Your task to perform on an android device: toggle sleep mode Image 0: 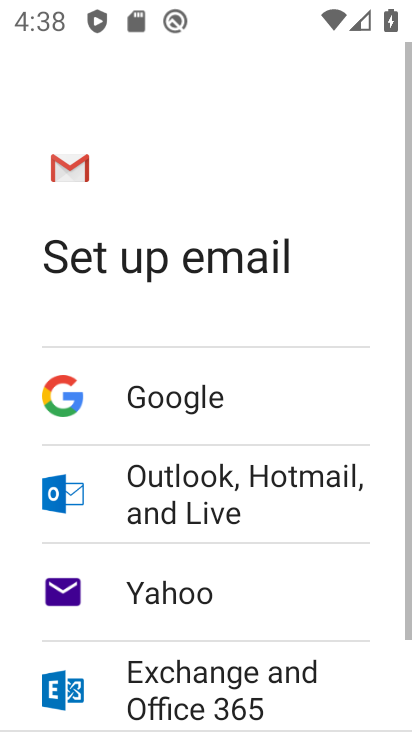
Step 0: press back button
Your task to perform on an android device: toggle sleep mode Image 1: 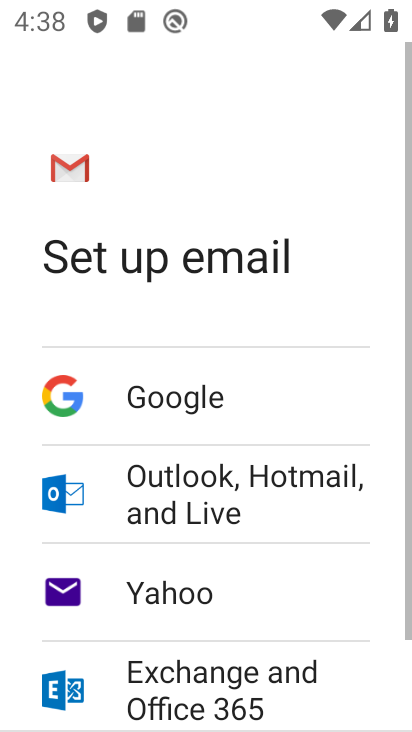
Step 1: press back button
Your task to perform on an android device: toggle sleep mode Image 2: 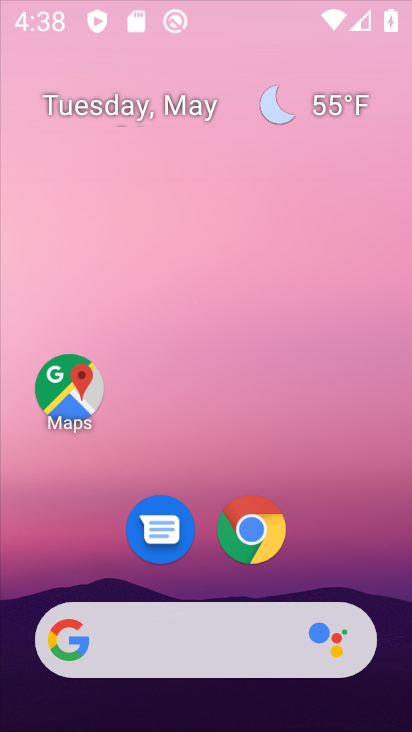
Step 2: press back button
Your task to perform on an android device: toggle sleep mode Image 3: 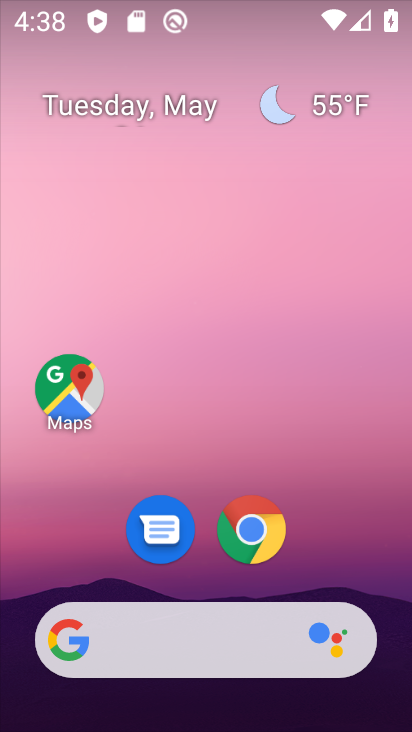
Step 3: drag from (157, 277) to (130, 134)
Your task to perform on an android device: toggle sleep mode Image 4: 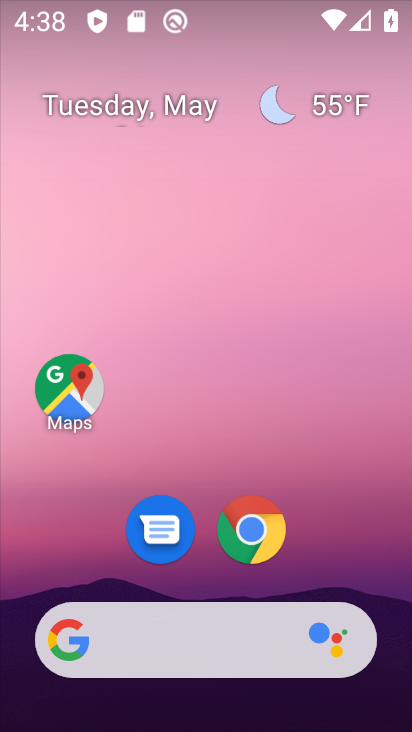
Step 4: drag from (206, 631) to (98, 171)
Your task to perform on an android device: toggle sleep mode Image 5: 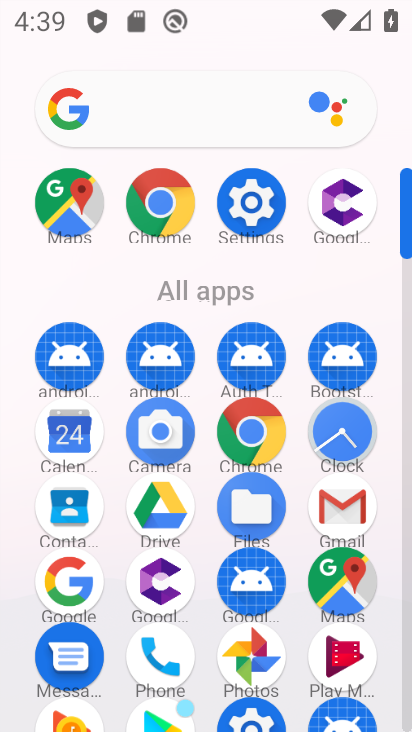
Step 5: drag from (254, 284) to (254, 232)
Your task to perform on an android device: toggle sleep mode Image 6: 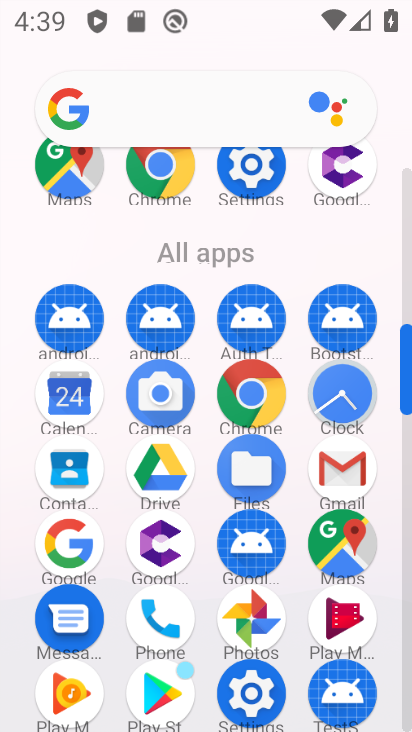
Step 6: drag from (283, 485) to (295, 212)
Your task to perform on an android device: toggle sleep mode Image 7: 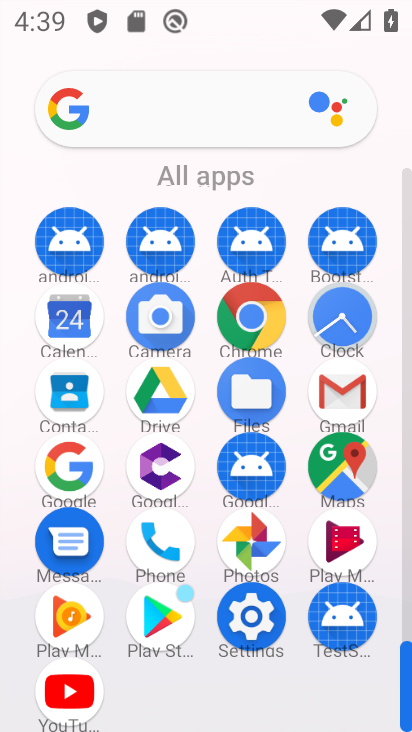
Step 7: click (257, 616)
Your task to perform on an android device: toggle sleep mode Image 8: 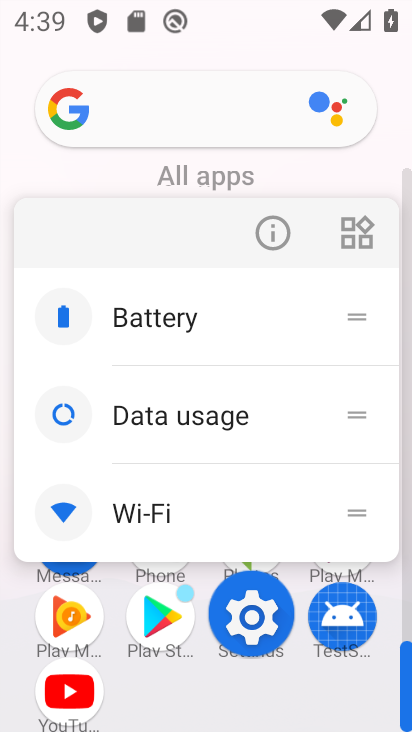
Step 8: click (254, 618)
Your task to perform on an android device: toggle sleep mode Image 9: 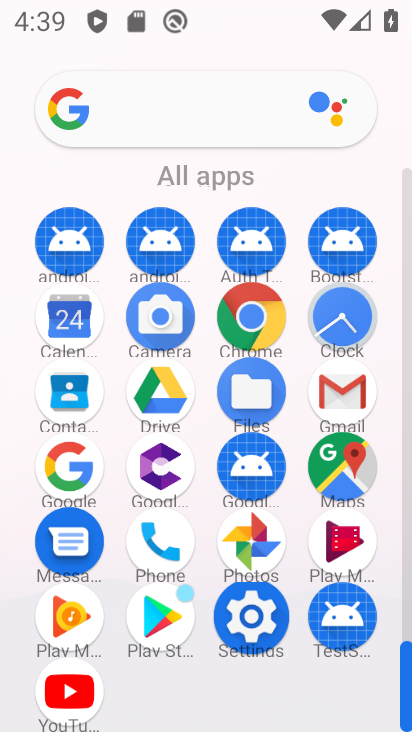
Step 9: click (246, 621)
Your task to perform on an android device: toggle sleep mode Image 10: 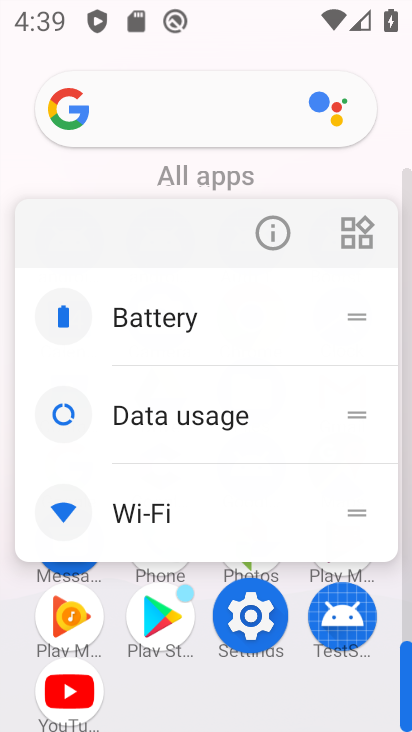
Step 10: click (246, 621)
Your task to perform on an android device: toggle sleep mode Image 11: 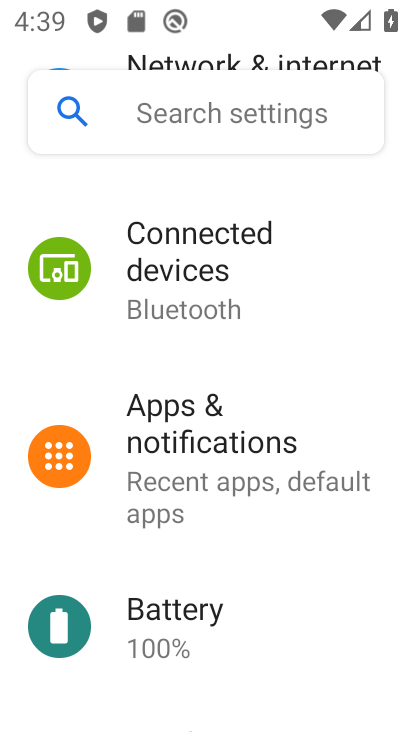
Step 11: drag from (247, 536) to (223, 260)
Your task to perform on an android device: toggle sleep mode Image 12: 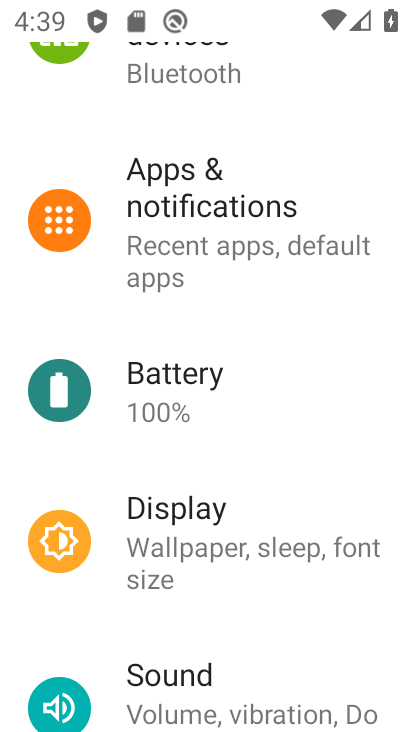
Step 12: drag from (239, 504) to (207, 239)
Your task to perform on an android device: toggle sleep mode Image 13: 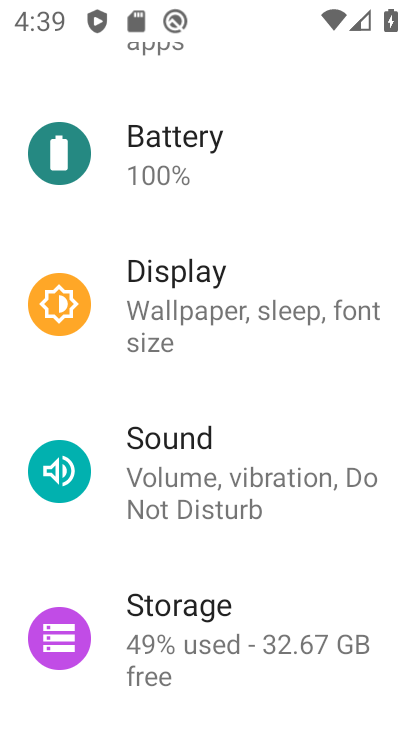
Step 13: drag from (183, 179) to (196, 572)
Your task to perform on an android device: toggle sleep mode Image 14: 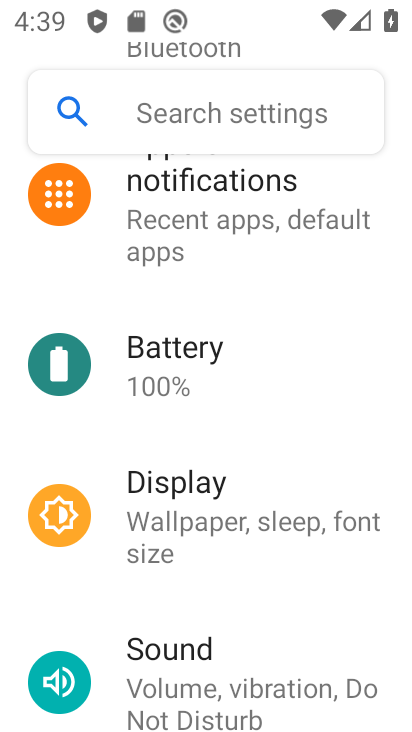
Step 14: drag from (150, 282) to (202, 693)
Your task to perform on an android device: toggle sleep mode Image 15: 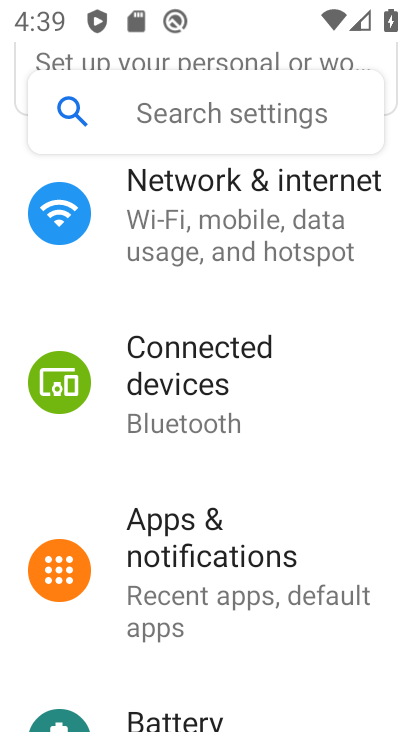
Step 15: drag from (205, 301) to (222, 698)
Your task to perform on an android device: toggle sleep mode Image 16: 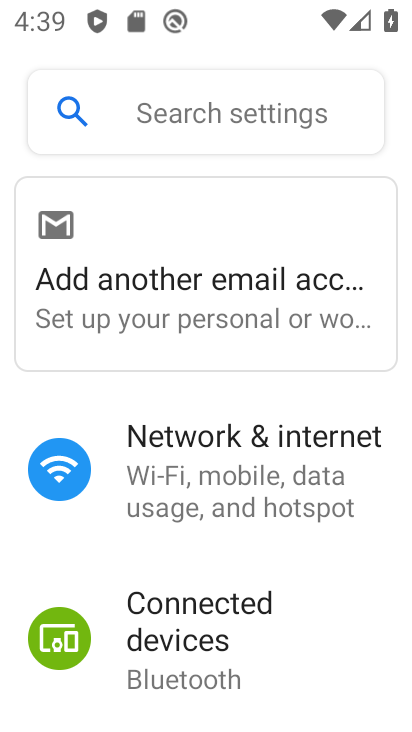
Step 16: drag from (233, 618) to (203, 199)
Your task to perform on an android device: toggle sleep mode Image 17: 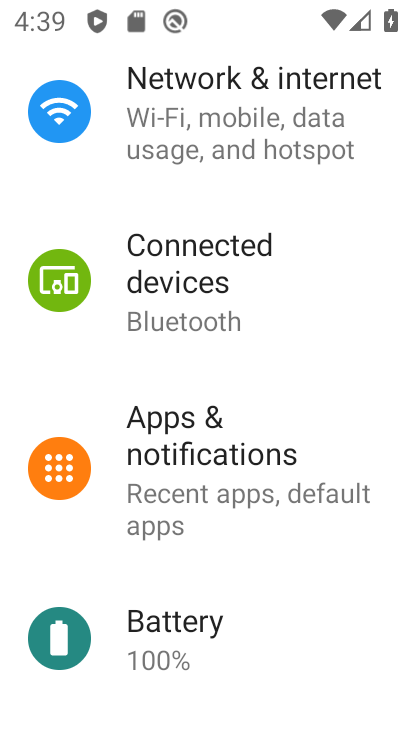
Step 17: drag from (193, 527) to (160, 249)
Your task to perform on an android device: toggle sleep mode Image 18: 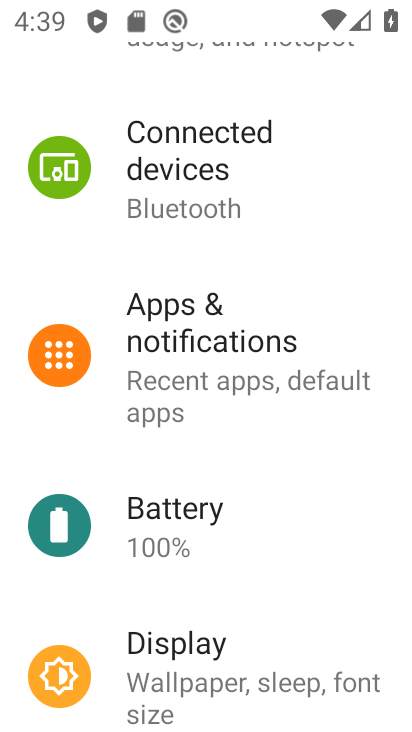
Step 18: drag from (218, 611) to (214, 197)
Your task to perform on an android device: toggle sleep mode Image 19: 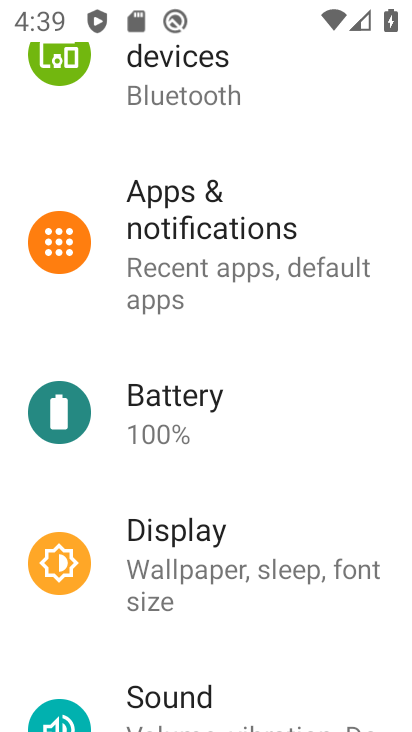
Step 19: click (181, 561)
Your task to perform on an android device: toggle sleep mode Image 20: 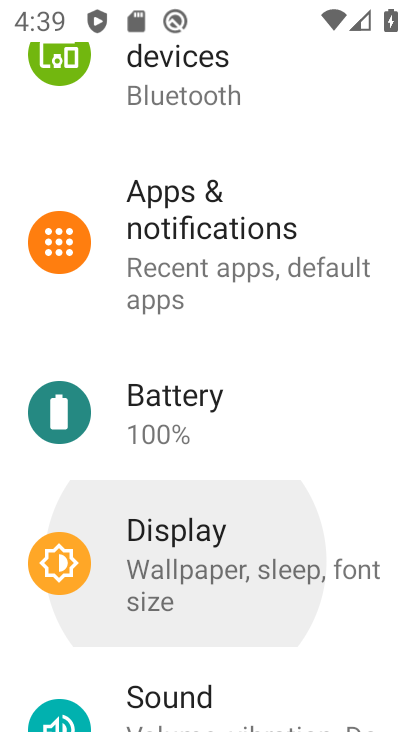
Step 20: click (181, 561)
Your task to perform on an android device: toggle sleep mode Image 21: 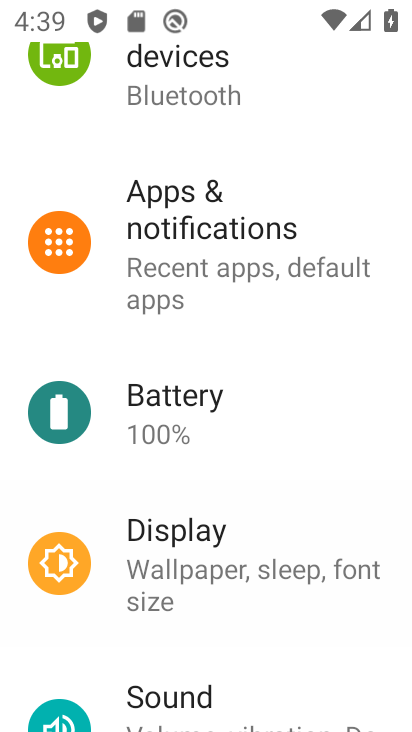
Step 21: click (181, 561)
Your task to perform on an android device: toggle sleep mode Image 22: 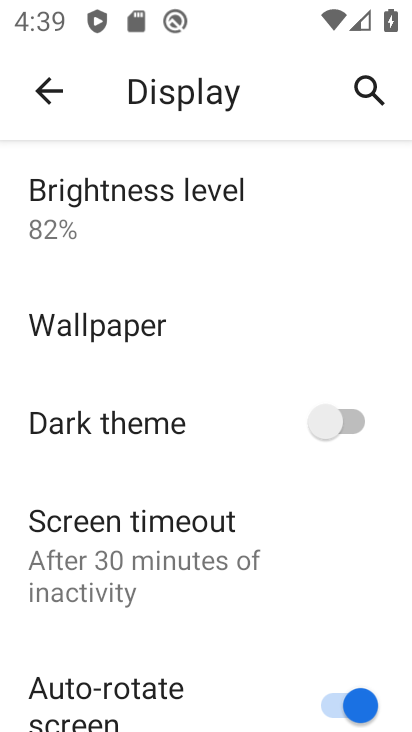
Step 22: drag from (145, 639) to (129, 314)
Your task to perform on an android device: toggle sleep mode Image 23: 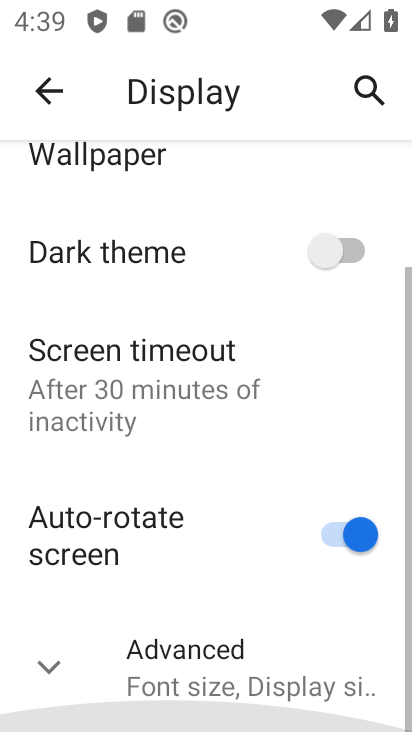
Step 23: drag from (196, 538) to (196, 176)
Your task to perform on an android device: toggle sleep mode Image 24: 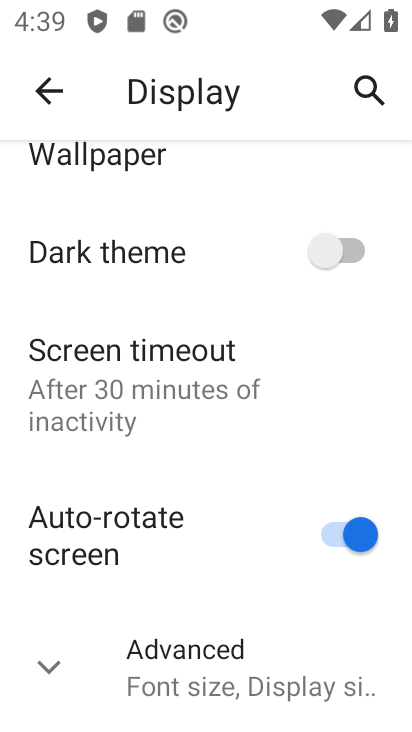
Step 24: click (107, 395)
Your task to perform on an android device: toggle sleep mode Image 25: 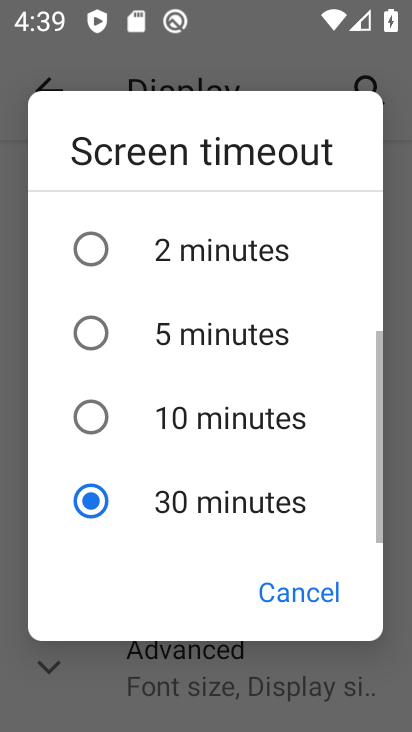
Step 25: click (83, 410)
Your task to perform on an android device: toggle sleep mode Image 26: 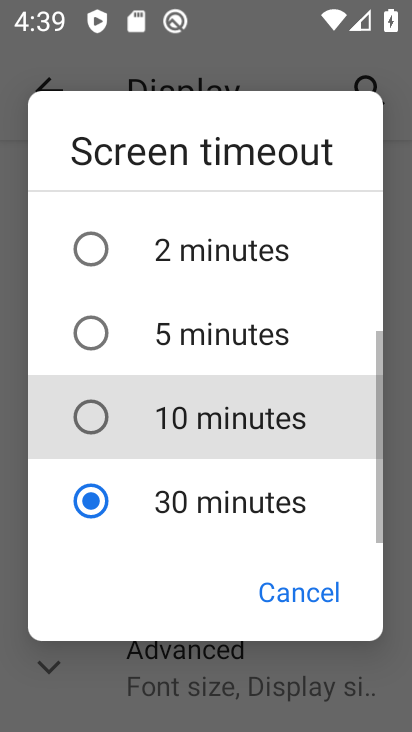
Step 26: click (81, 402)
Your task to perform on an android device: toggle sleep mode Image 27: 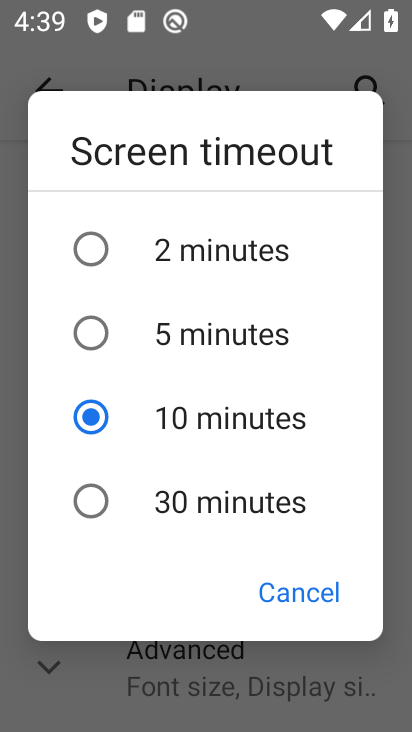
Step 27: task complete